Your task to perform on an android device: turn on javascript in the chrome app Image 0: 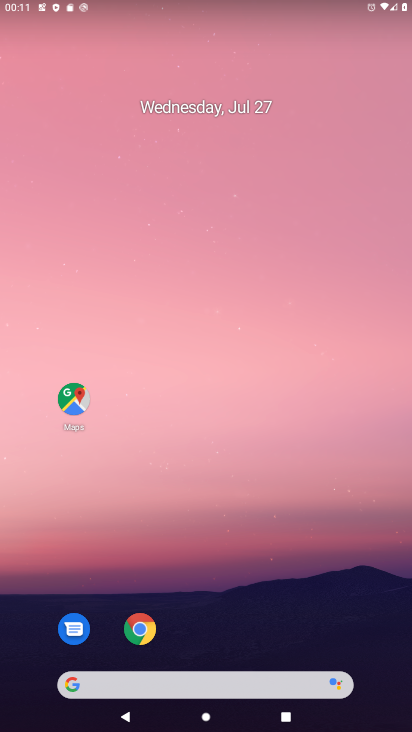
Step 0: click (141, 625)
Your task to perform on an android device: turn on javascript in the chrome app Image 1: 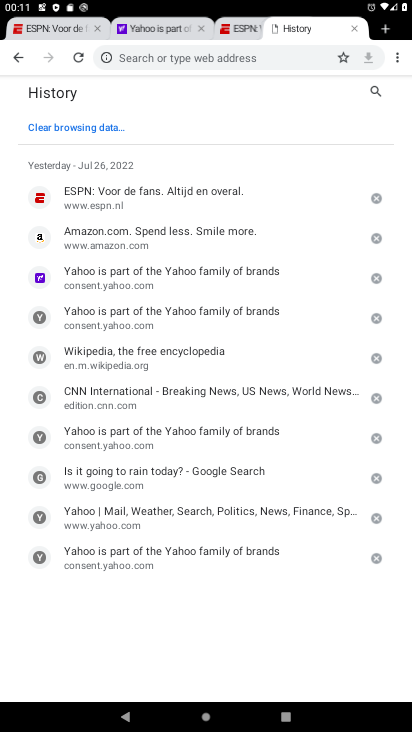
Step 1: click (398, 57)
Your task to perform on an android device: turn on javascript in the chrome app Image 2: 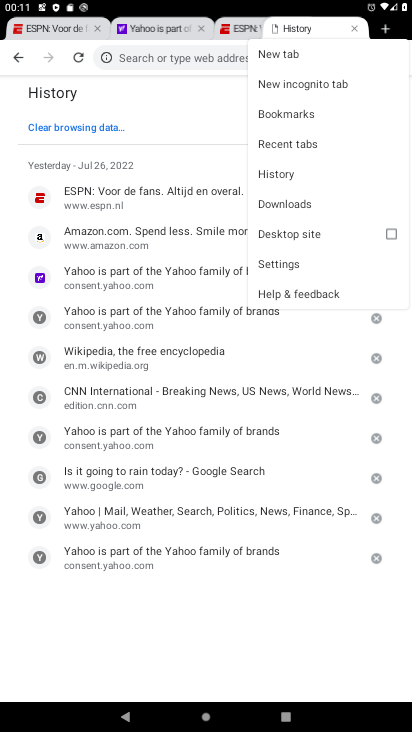
Step 2: click (272, 259)
Your task to perform on an android device: turn on javascript in the chrome app Image 3: 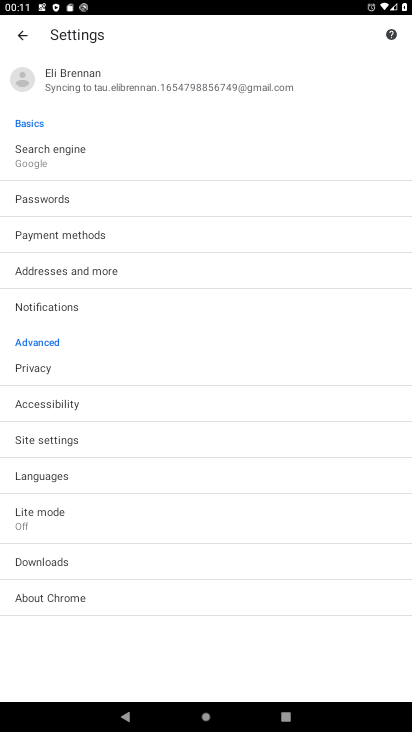
Step 3: click (45, 438)
Your task to perform on an android device: turn on javascript in the chrome app Image 4: 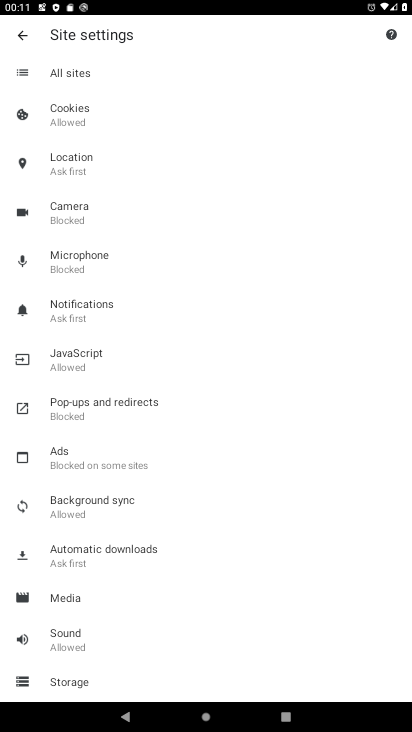
Step 4: click (60, 359)
Your task to perform on an android device: turn on javascript in the chrome app Image 5: 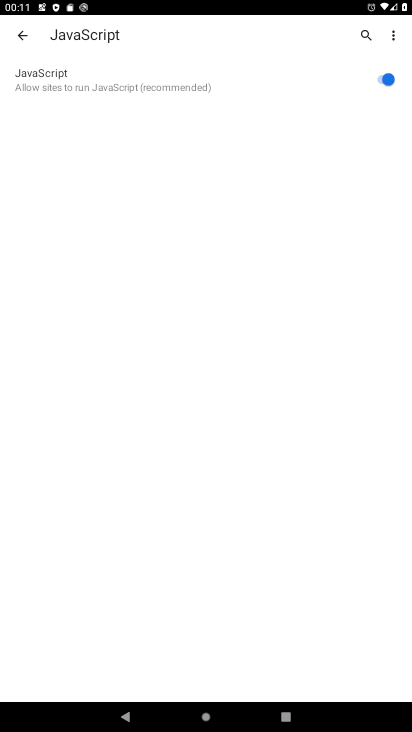
Step 5: task complete